Your task to perform on an android device: Search for Mexican restaurants on Maps Image 0: 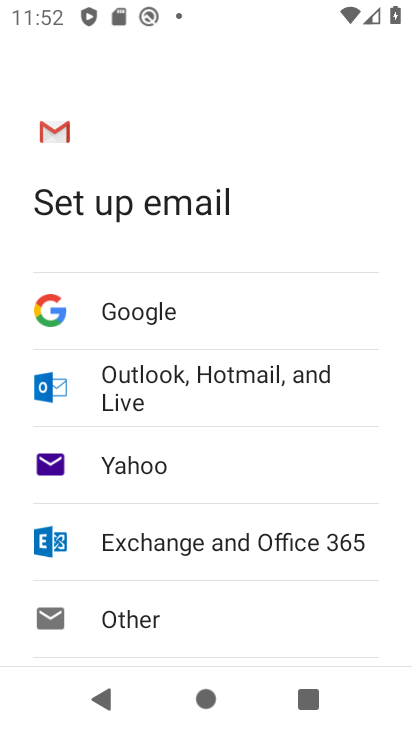
Step 0: press home button
Your task to perform on an android device: Search for Mexican restaurants on Maps Image 1: 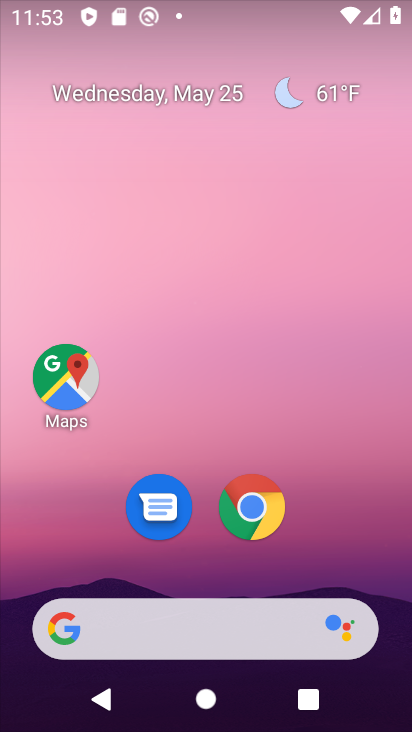
Step 1: drag from (344, 542) to (307, 160)
Your task to perform on an android device: Search for Mexican restaurants on Maps Image 2: 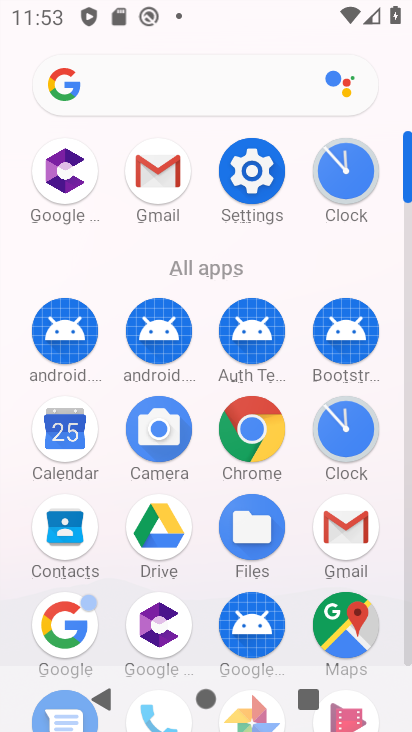
Step 2: click (341, 611)
Your task to perform on an android device: Search for Mexican restaurants on Maps Image 3: 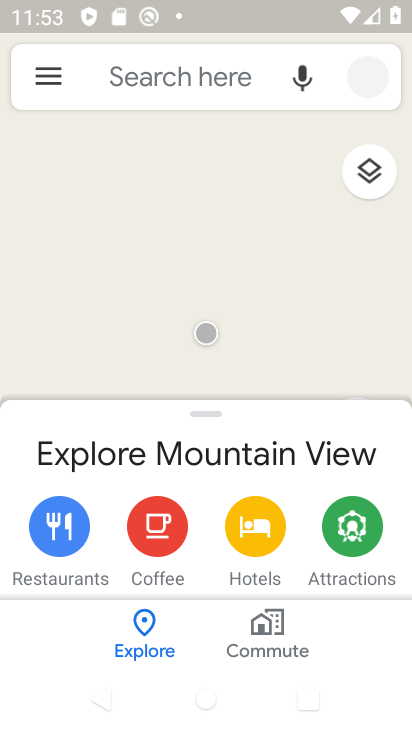
Step 3: click (195, 76)
Your task to perform on an android device: Search for Mexican restaurants on Maps Image 4: 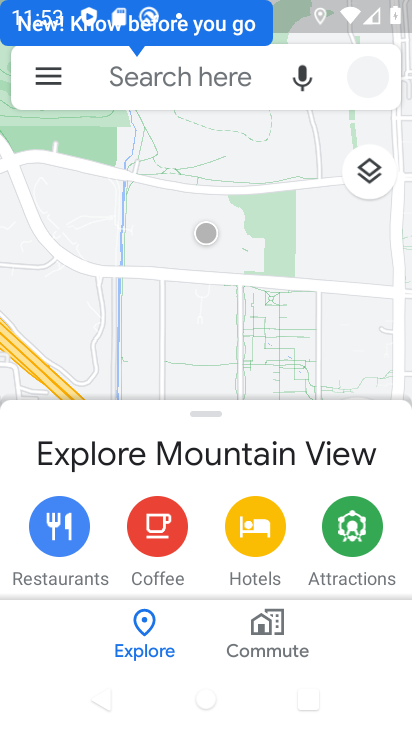
Step 4: click (195, 76)
Your task to perform on an android device: Search for Mexican restaurants on Maps Image 5: 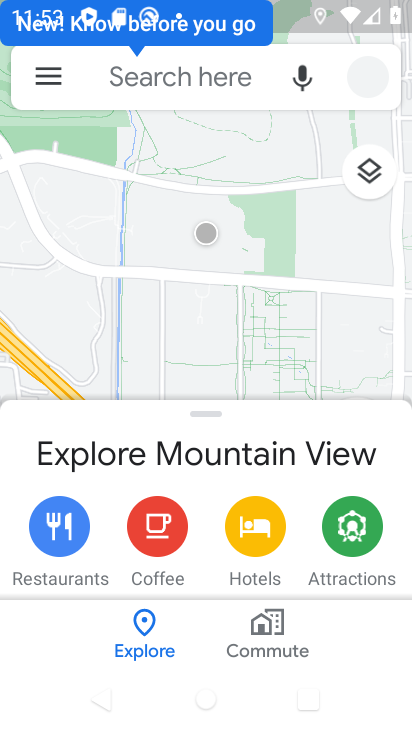
Step 5: click (195, 76)
Your task to perform on an android device: Search for Mexican restaurants on Maps Image 6: 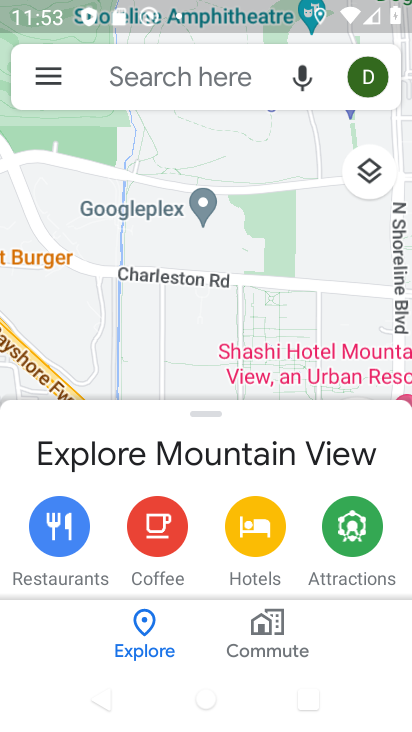
Step 6: click (195, 76)
Your task to perform on an android device: Search for Mexican restaurants on Maps Image 7: 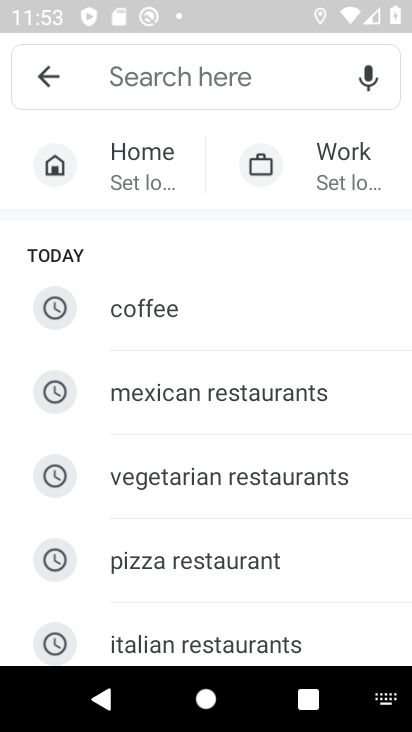
Step 7: click (200, 401)
Your task to perform on an android device: Search for Mexican restaurants on Maps Image 8: 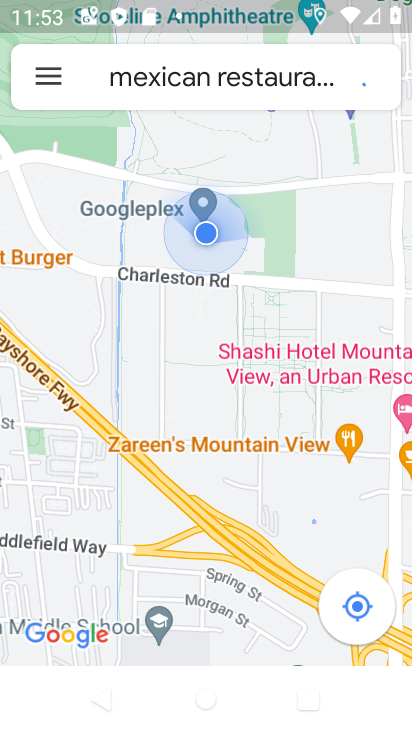
Step 8: task complete